Your task to perform on an android device: Open accessibility settings Image 0: 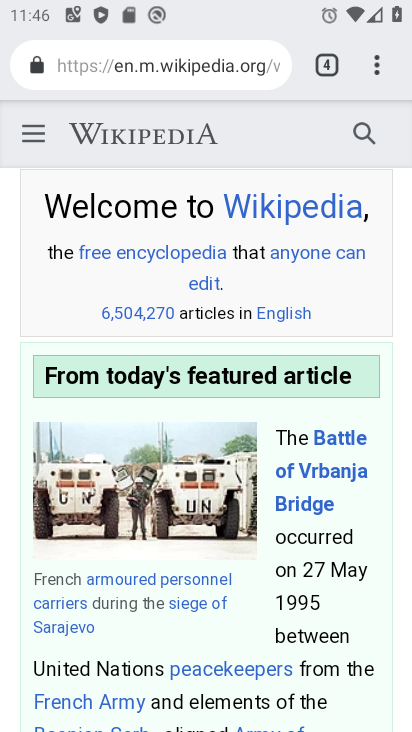
Step 0: press home button
Your task to perform on an android device: Open accessibility settings Image 1: 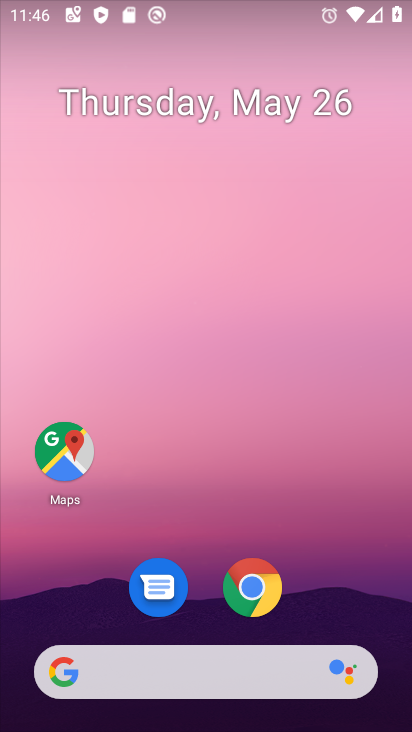
Step 1: drag from (311, 698) to (339, 220)
Your task to perform on an android device: Open accessibility settings Image 2: 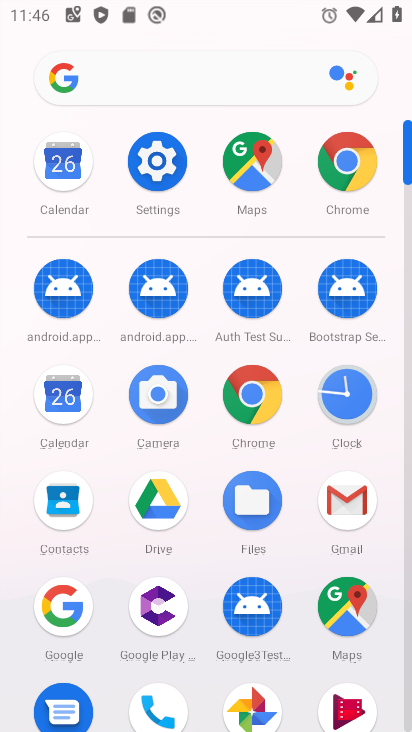
Step 2: click (144, 173)
Your task to perform on an android device: Open accessibility settings Image 3: 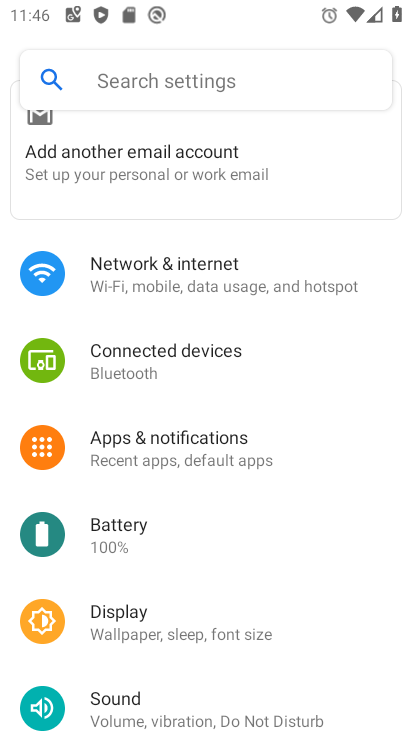
Step 3: click (171, 74)
Your task to perform on an android device: Open accessibility settings Image 4: 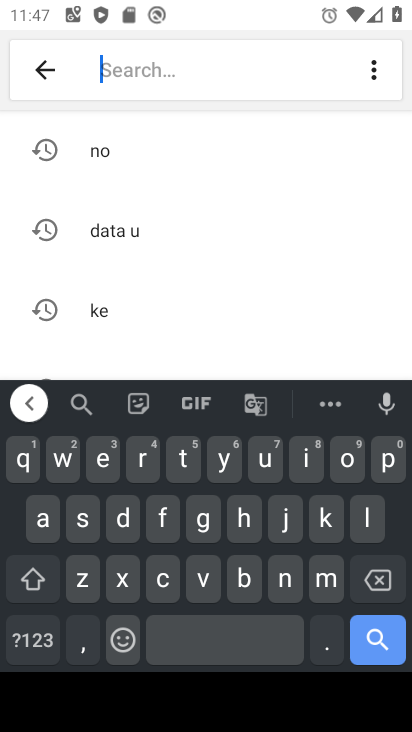
Step 4: click (41, 514)
Your task to perform on an android device: Open accessibility settings Image 5: 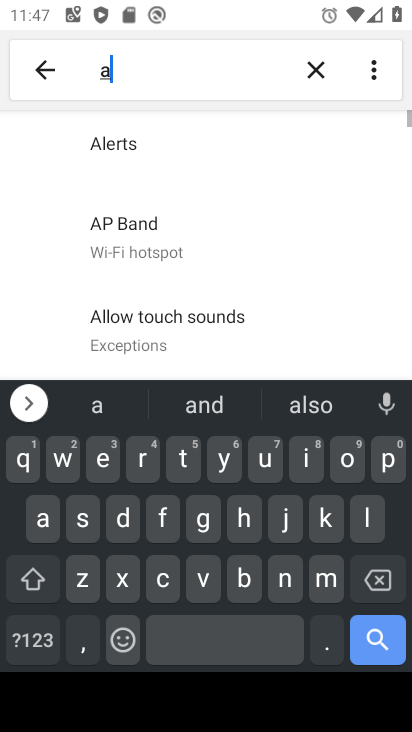
Step 5: click (157, 584)
Your task to perform on an android device: Open accessibility settings Image 6: 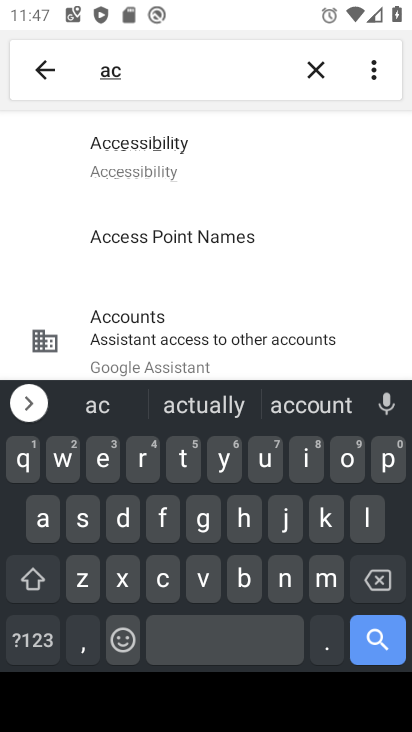
Step 6: click (186, 150)
Your task to perform on an android device: Open accessibility settings Image 7: 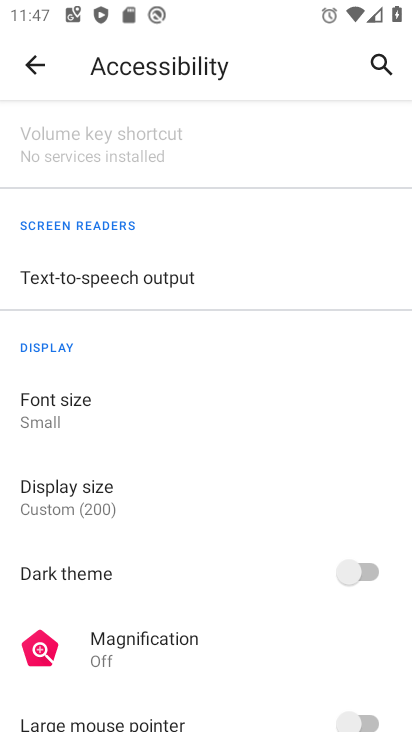
Step 7: task complete